Your task to perform on an android device: turn off airplane mode Image 0: 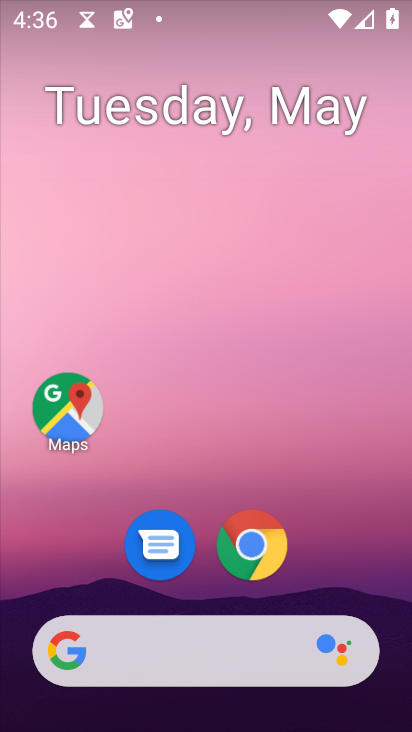
Step 0: drag from (326, 566) to (269, 27)
Your task to perform on an android device: turn off airplane mode Image 1: 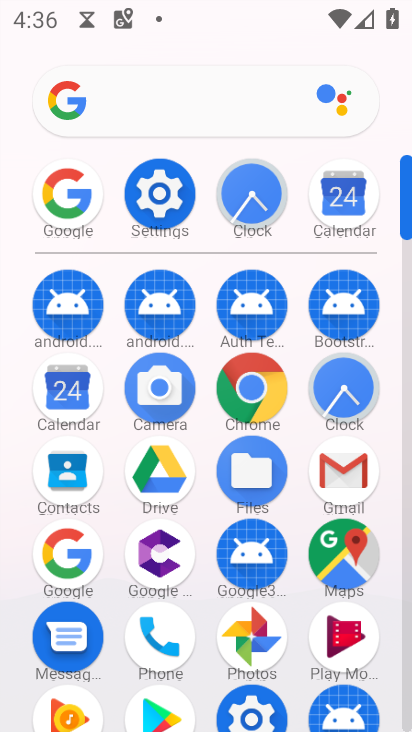
Step 1: click (163, 193)
Your task to perform on an android device: turn off airplane mode Image 2: 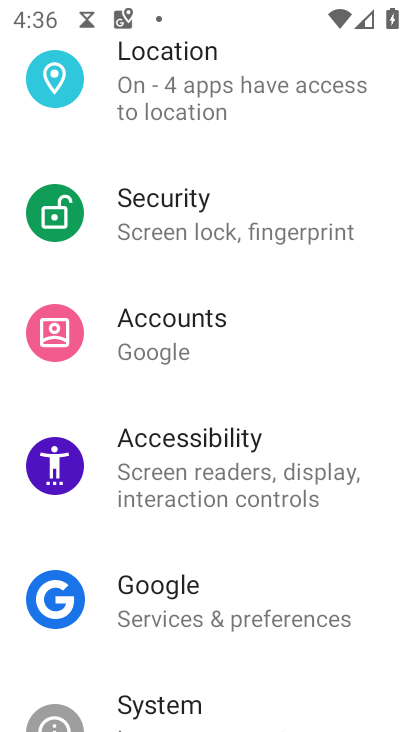
Step 2: drag from (278, 304) to (281, 722)
Your task to perform on an android device: turn off airplane mode Image 3: 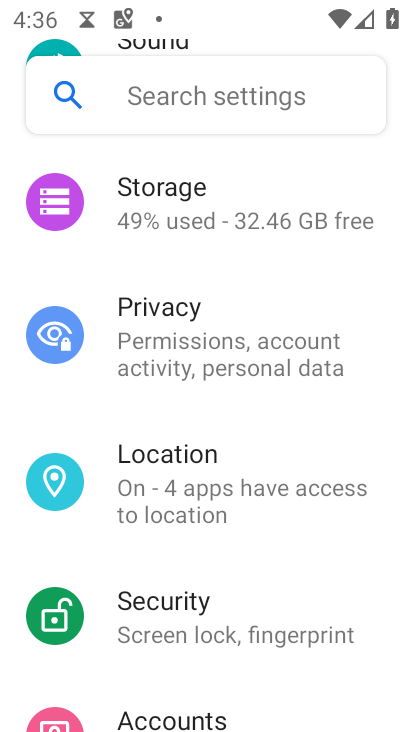
Step 3: drag from (265, 274) to (344, 718)
Your task to perform on an android device: turn off airplane mode Image 4: 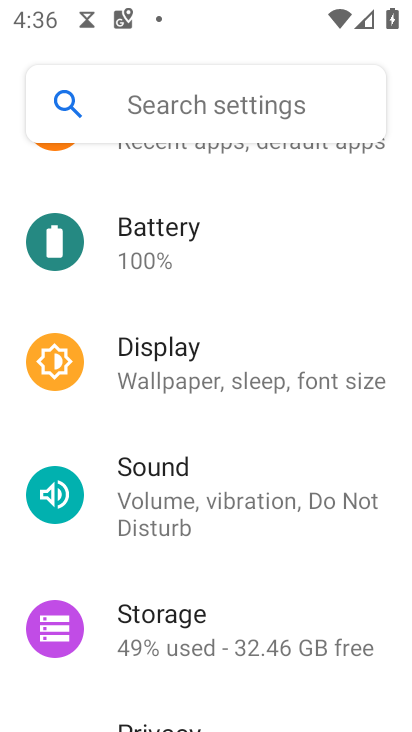
Step 4: drag from (259, 245) to (297, 615)
Your task to perform on an android device: turn off airplane mode Image 5: 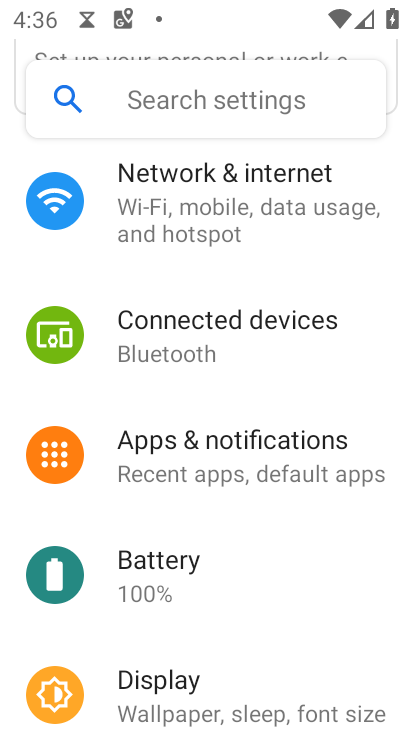
Step 5: click (213, 172)
Your task to perform on an android device: turn off airplane mode Image 6: 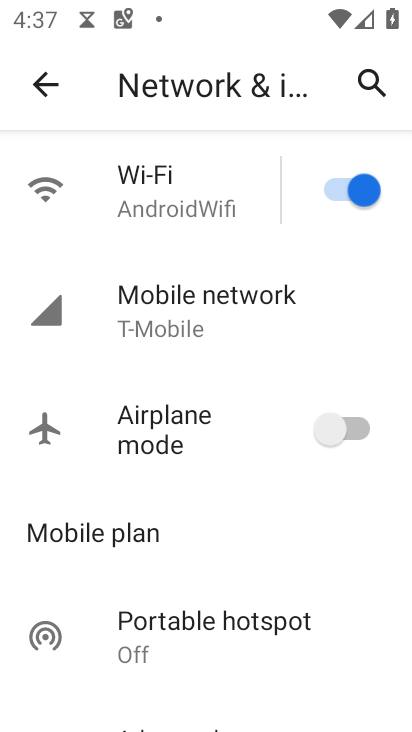
Step 6: task complete